Your task to perform on an android device: clear all cookies in the chrome app Image 0: 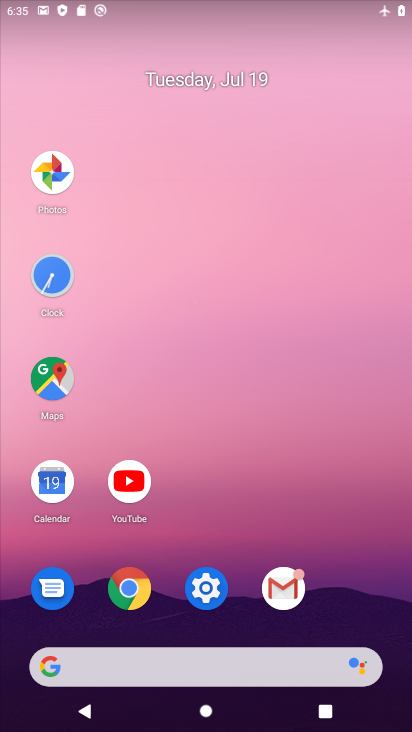
Step 0: click (129, 594)
Your task to perform on an android device: clear all cookies in the chrome app Image 1: 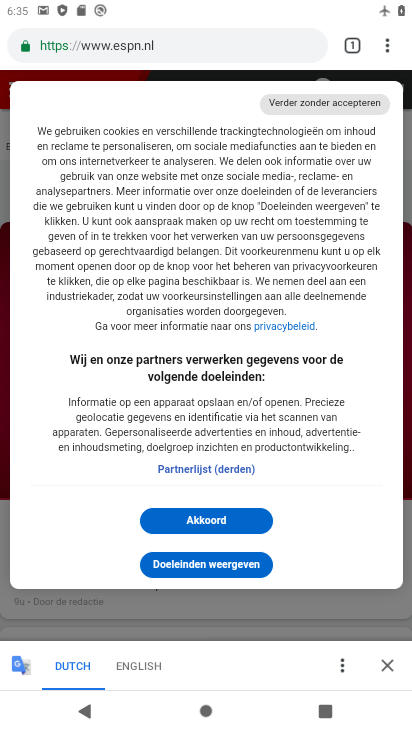
Step 1: click (395, 52)
Your task to perform on an android device: clear all cookies in the chrome app Image 2: 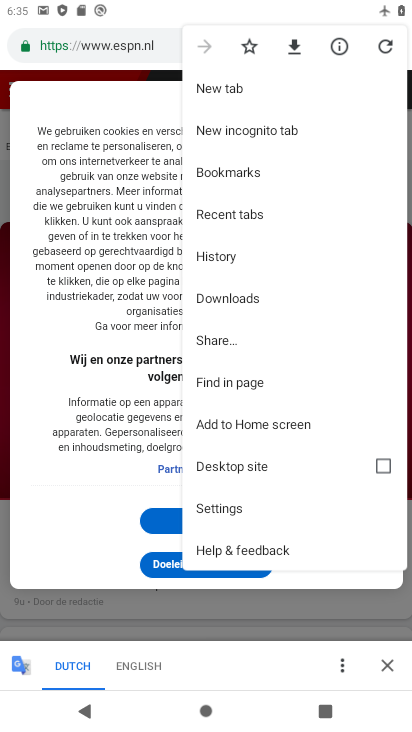
Step 2: click (213, 508)
Your task to perform on an android device: clear all cookies in the chrome app Image 3: 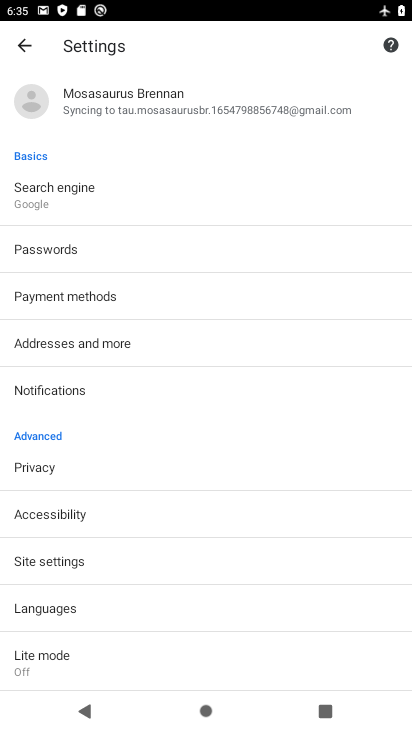
Step 3: click (37, 470)
Your task to perform on an android device: clear all cookies in the chrome app Image 4: 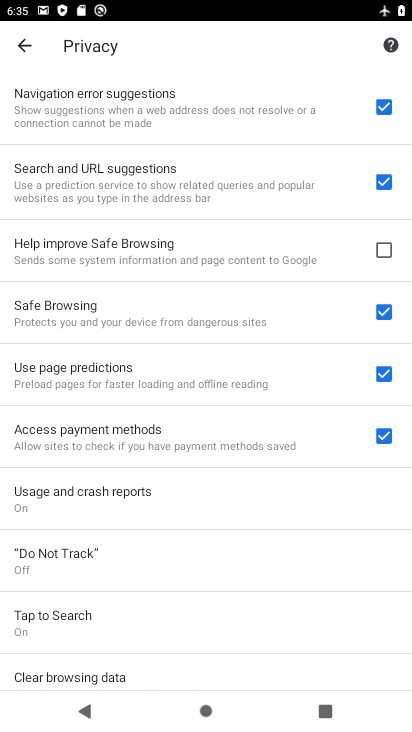
Step 4: drag from (253, 621) to (192, 194)
Your task to perform on an android device: clear all cookies in the chrome app Image 5: 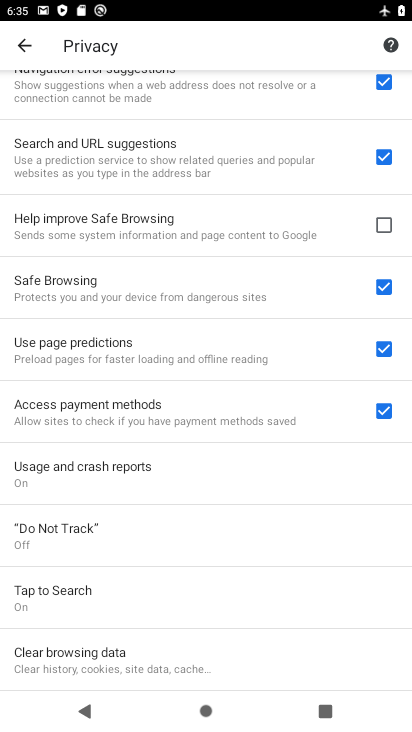
Step 5: click (77, 648)
Your task to perform on an android device: clear all cookies in the chrome app Image 6: 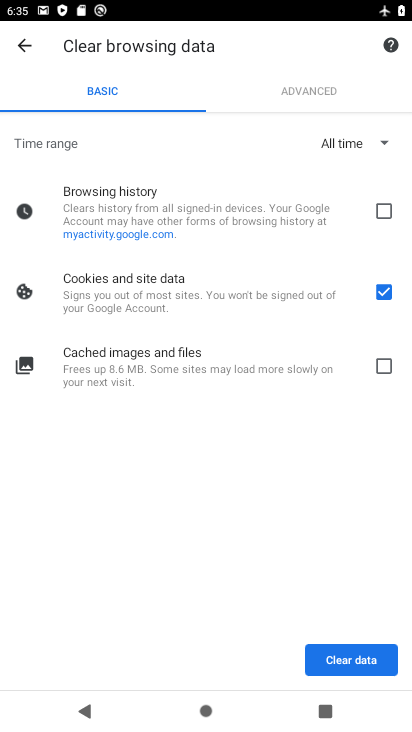
Step 6: click (362, 651)
Your task to perform on an android device: clear all cookies in the chrome app Image 7: 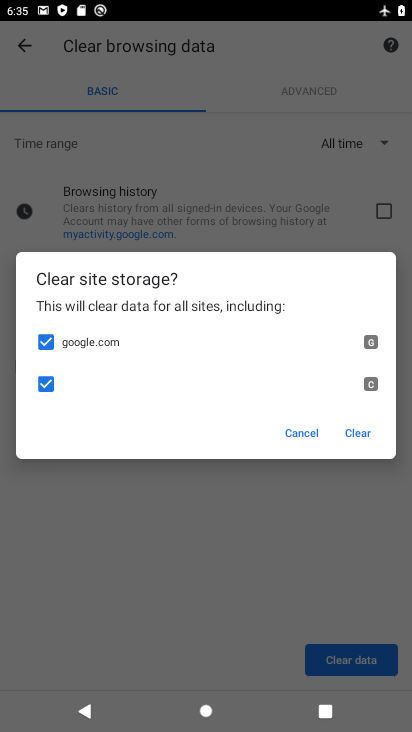
Step 7: click (351, 432)
Your task to perform on an android device: clear all cookies in the chrome app Image 8: 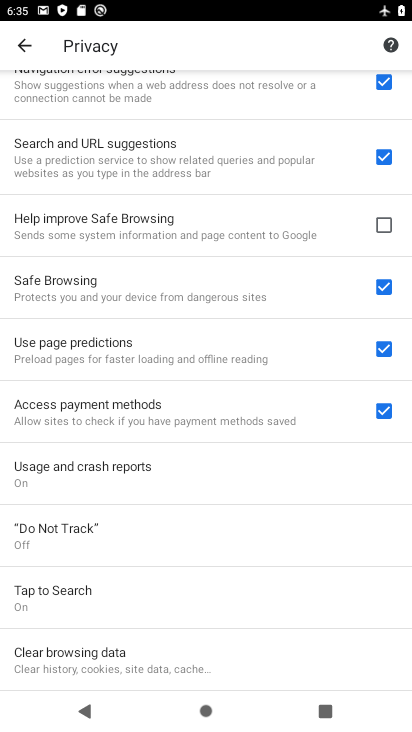
Step 8: task complete